Your task to perform on an android device: add a contact Image 0: 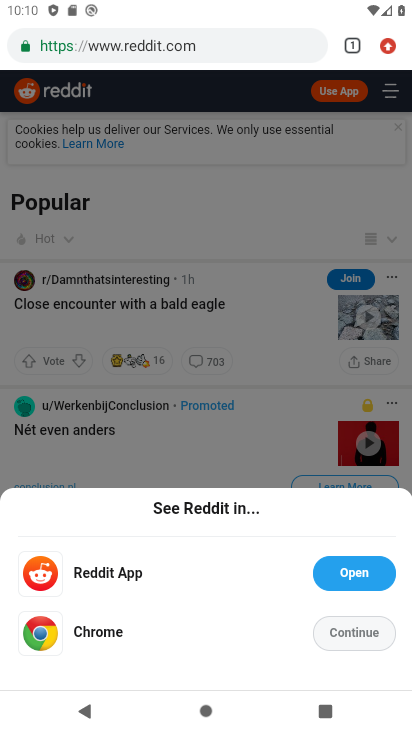
Step 0: press home button
Your task to perform on an android device: add a contact Image 1: 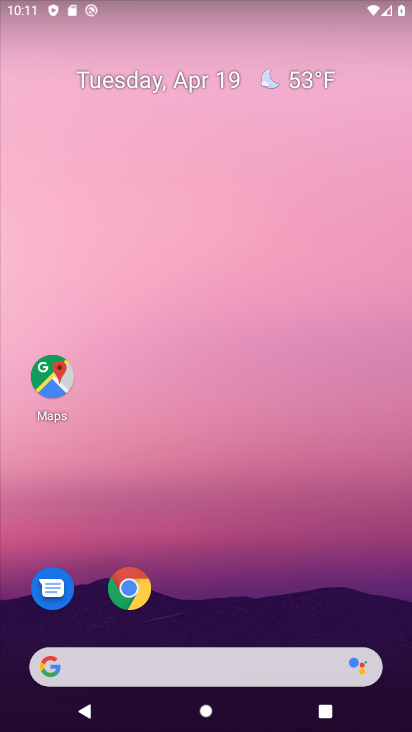
Step 1: drag from (196, 676) to (153, 276)
Your task to perform on an android device: add a contact Image 2: 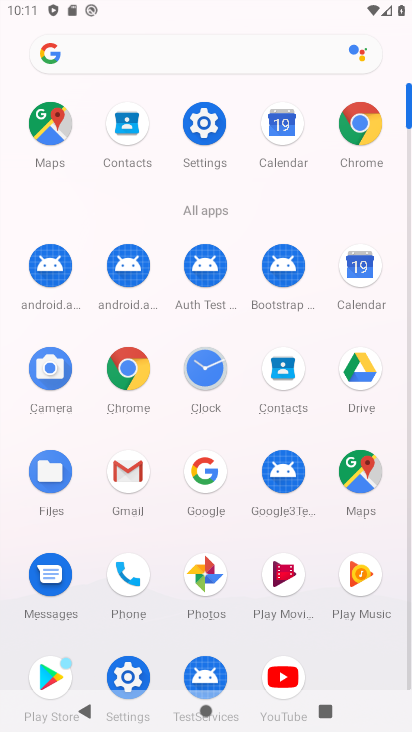
Step 2: click (281, 369)
Your task to perform on an android device: add a contact Image 3: 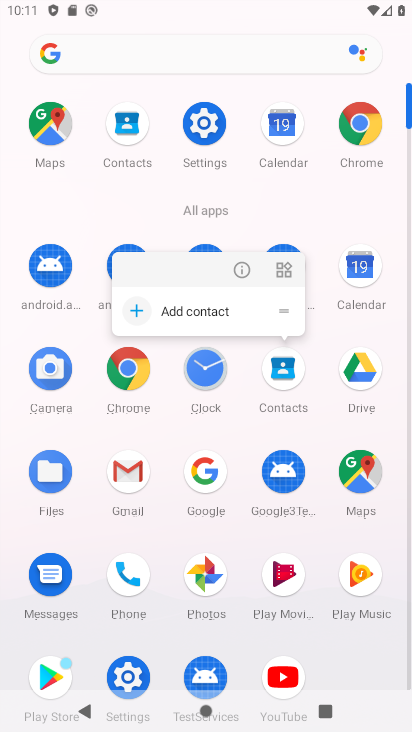
Step 3: click (281, 369)
Your task to perform on an android device: add a contact Image 4: 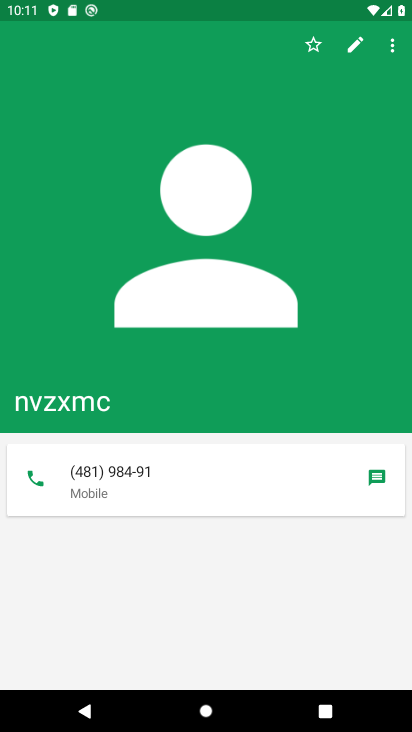
Step 4: press back button
Your task to perform on an android device: add a contact Image 5: 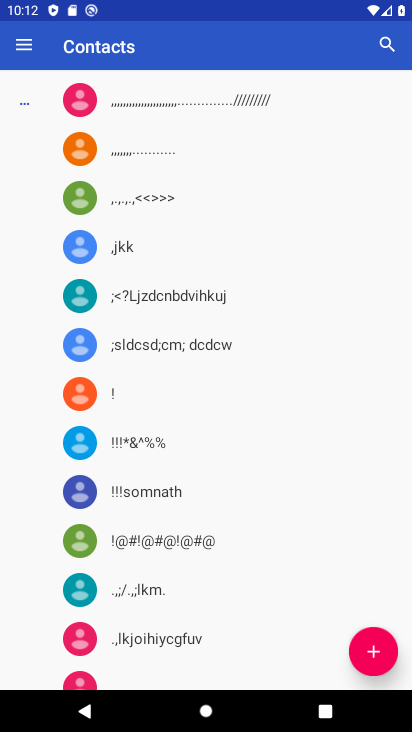
Step 5: click (379, 659)
Your task to perform on an android device: add a contact Image 6: 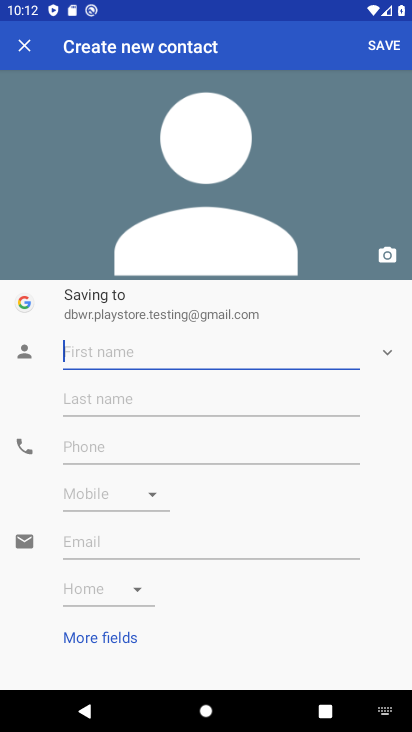
Step 6: type "bmvb cvx"
Your task to perform on an android device: add a contact Image 7: 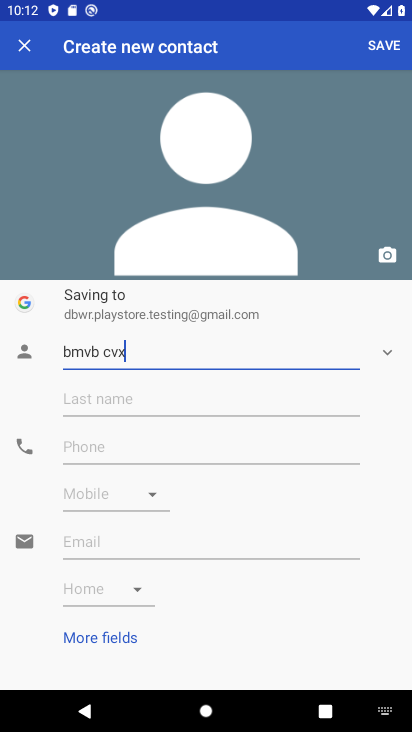
Step 7: click (168, 445)
Your task to perform on an android device: add a contact Image 8: 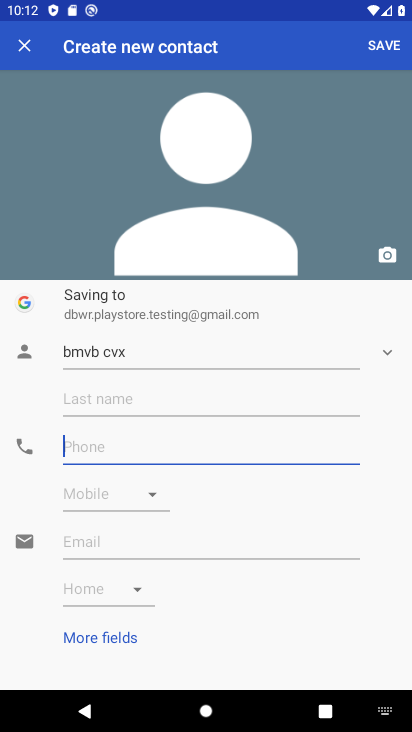
Step 8: type "9384932802"
Your task to perform on an android device: add a contact Image 9: 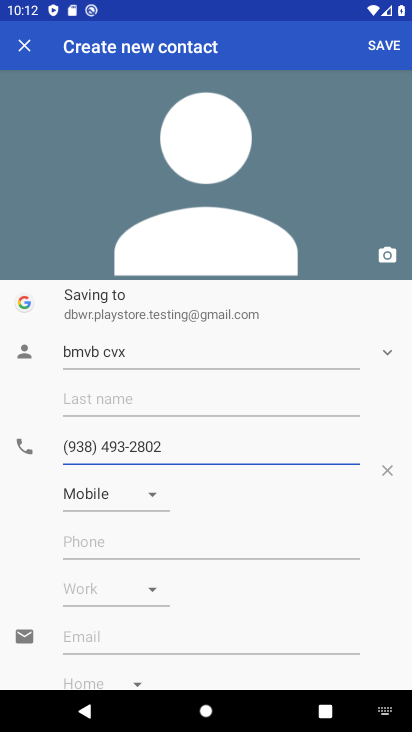
Step 9: click (393, 42)
Your task to perform on an android device: add a contact Image 10: 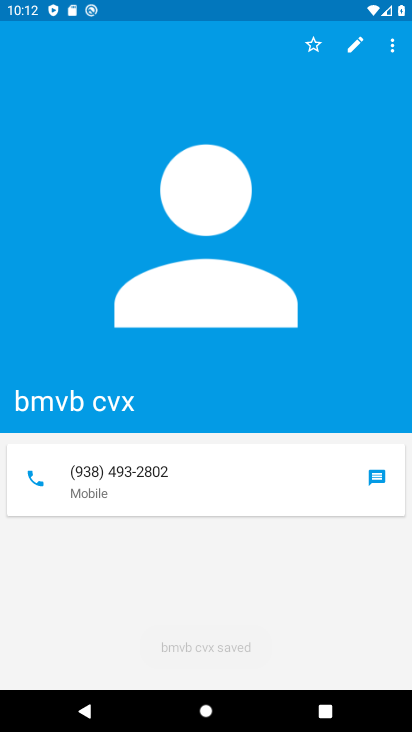
Step 10: task complete